Your task to perform on an android device: Do I have any events tomorrow? Image 0: 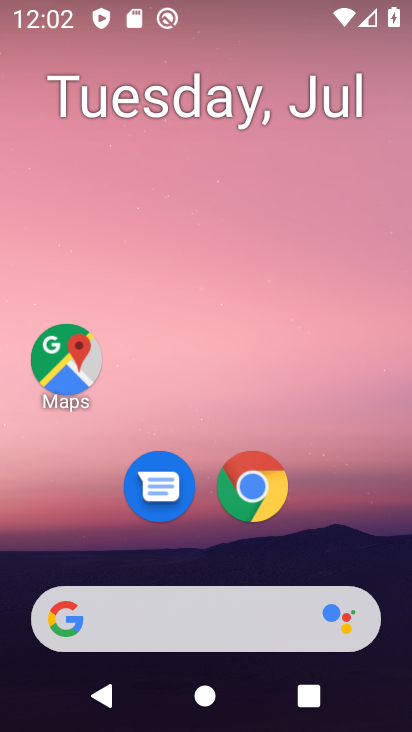
Step 0: drag from (379, 503) to (379, 90)
Your task to perform on an android device: Do I have any events tomorrow? Image 1: 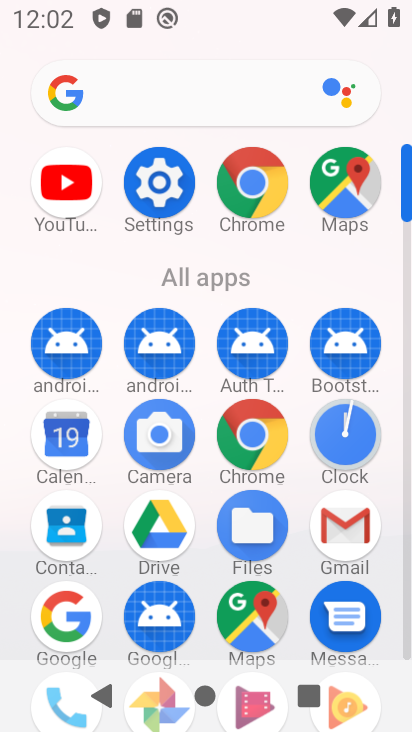
Step 1: click (70, 437)
Your task to perform on an android device: Do I have any events tomorrow? Image 2: 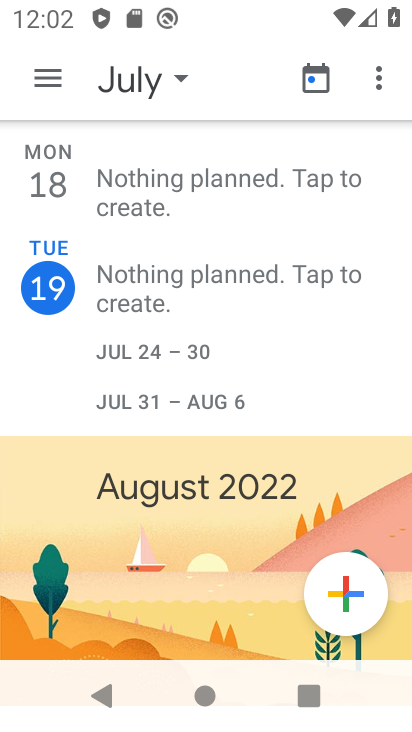
Step 2: click (180, 81)
Your task to perform on an android device: Do I have any events tomorrow? Image 3: 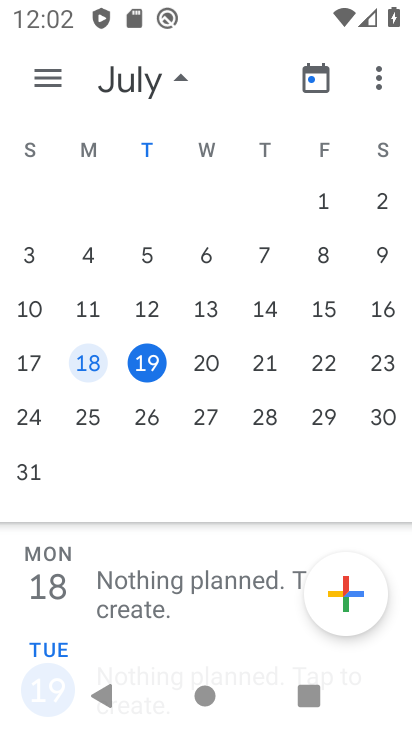
Step 3: click (208, 367)
Your task to perform on an android device: Do I have any events tomorrow? Image 4: 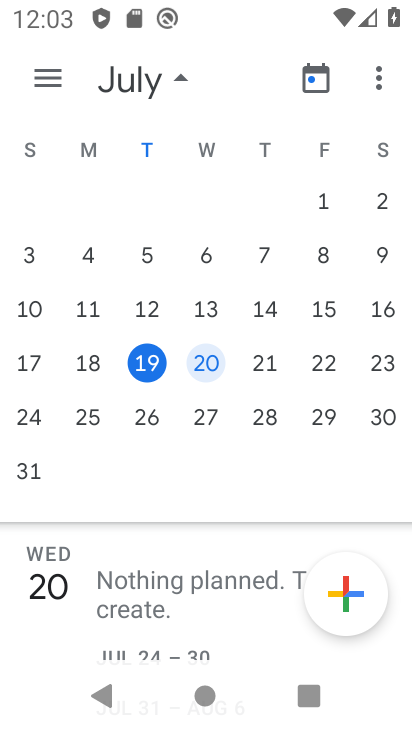
Step 4: task complete